Your task to perform on an android device: see tabs open on other devices in the chrome app Image 0: 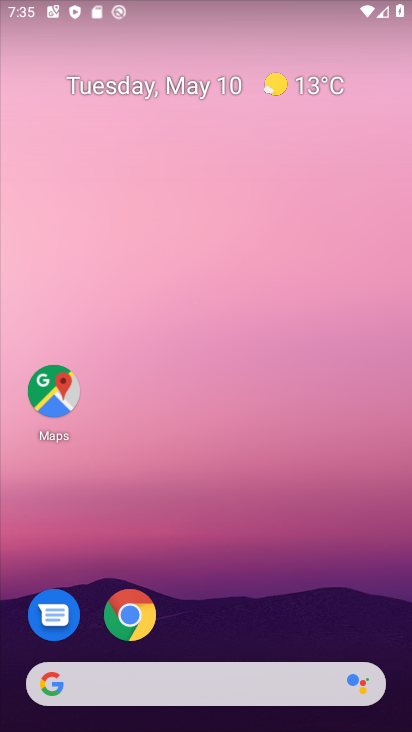
Step 0: drag from (5, 219) to (401, 496)
Your task to perform on an android device: see tabs open on other devices in the chrome app Image 1: 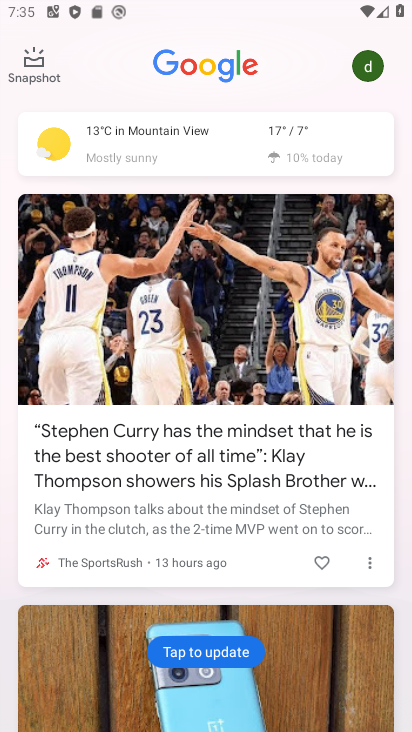
Step 1: task complete